Your task to perform on an android device: Turn off the flashlight Image 0: 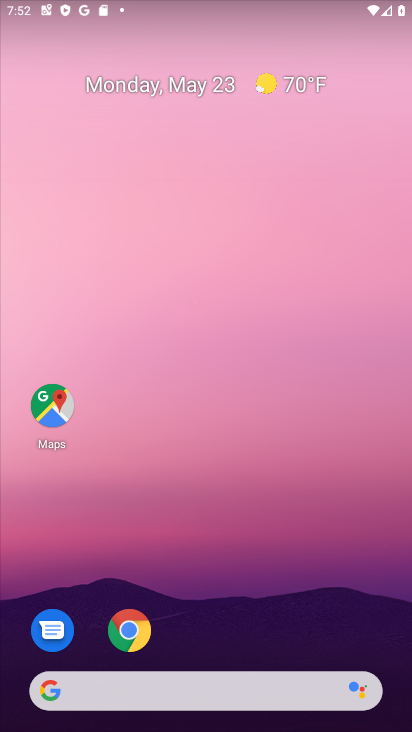
Step 0: drag from (389, 619) to (277, 156)
Your task to perform on an android device: Turn off the flashlight Image 1: 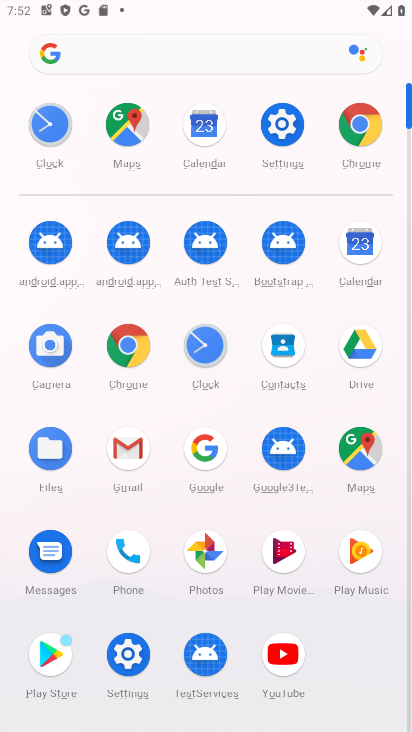
Step 1: click (287, 141)
Your task to perform on an android device: Turn off the flashlight Image 2: 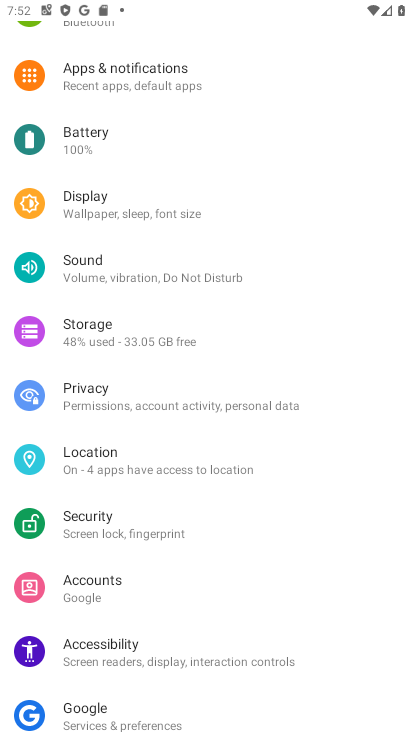
Step 2: drag from (198, 146) to (199, 607)
Your task to perform on an android device: Turn off the flashlight Image 3: 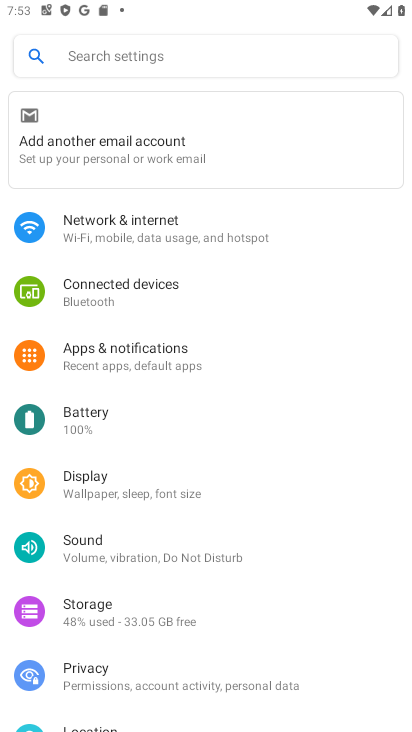
Step 3: click (146, 473)
Your task to perform on an android device: Turn off the flashlight Image 4: 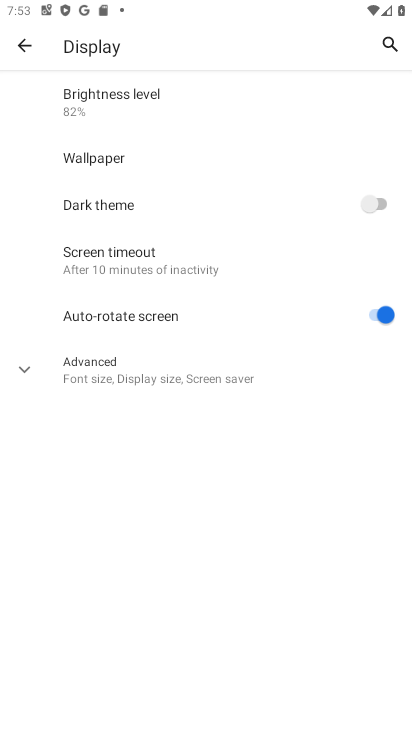
Step 4: task complete